Your task to perform on an android device: Check the weather Image 0: 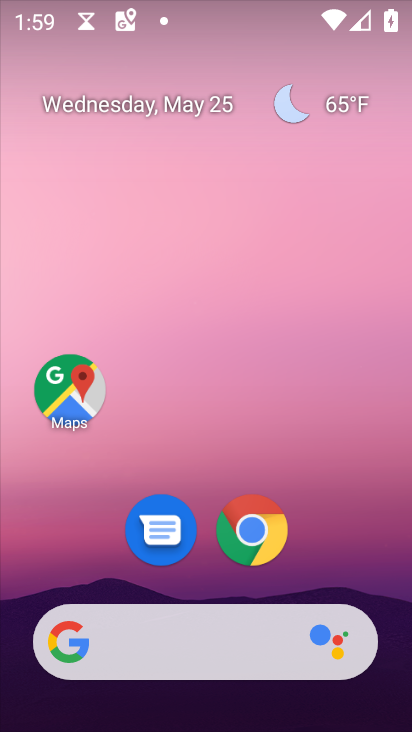
Step 0: click (254, 539)
Your task to perform on an android device: Check the weather Image 1: 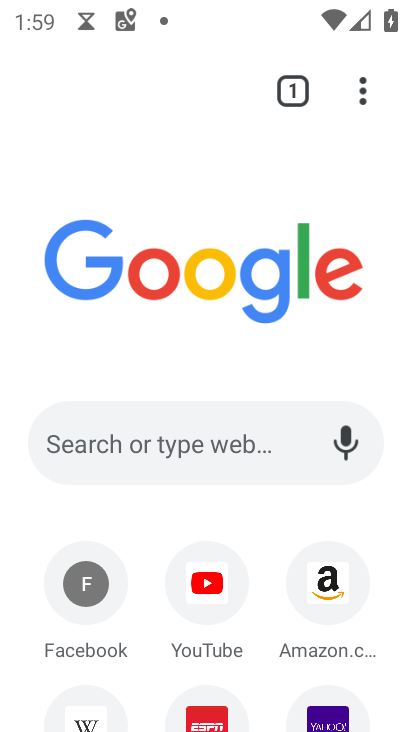
Step 1: click (223, 421)
Your task to perform on an android device: Check the weather Image 2: 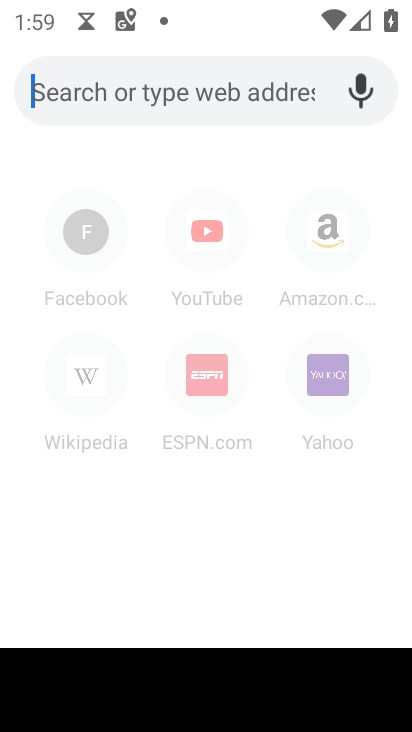
Step 2: type "Check the weather"
Your task to perform on an android device: Check the weather Image 3: 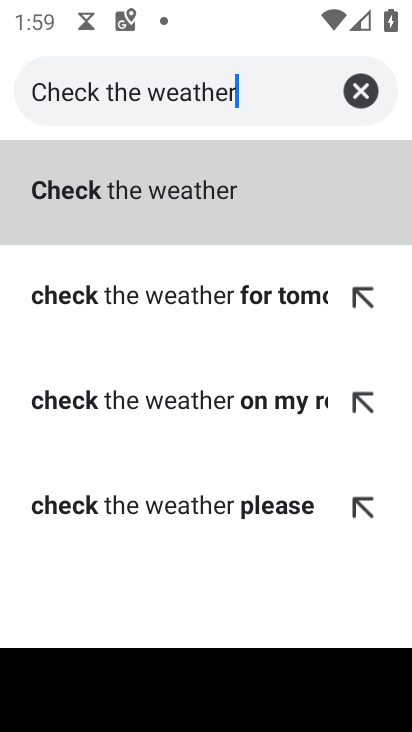
Step 3: click (182, 171)
Your task to perform on an android device: Check the weather Image 4: 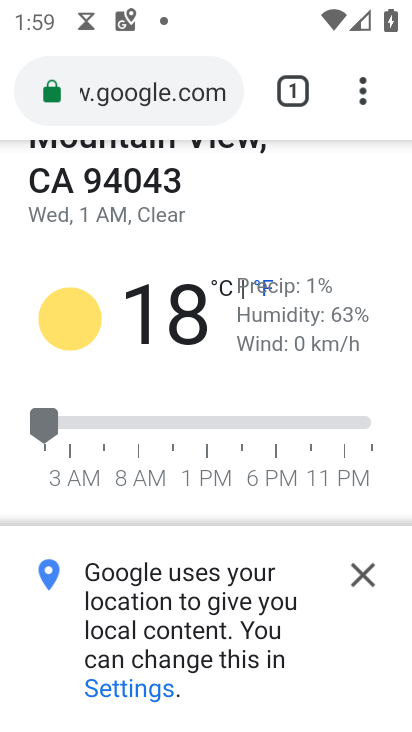
Step 4: click (363, 585)
Your task to perform on an android device: Check the weather Image 5: 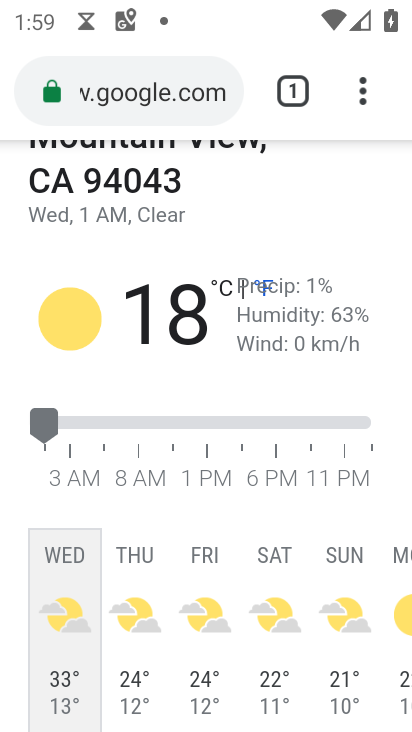
Step 5: task complete